Your task to perform on an android device: allow cookies in the chrome app Image 0: 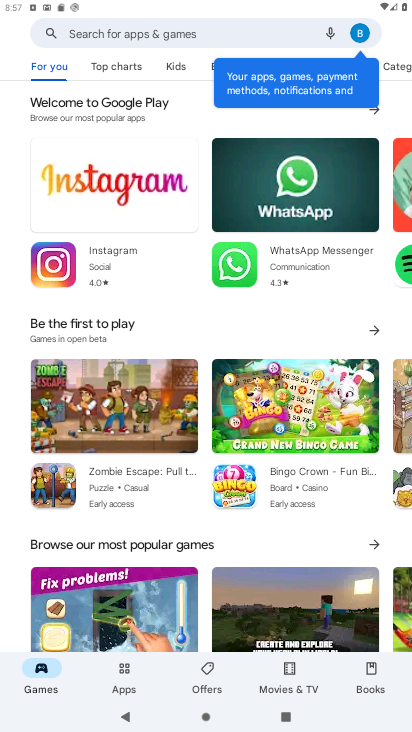
Step 0: task complete